Your task to perform on an android device: turn off priority inbox in the gmail app Image 0: 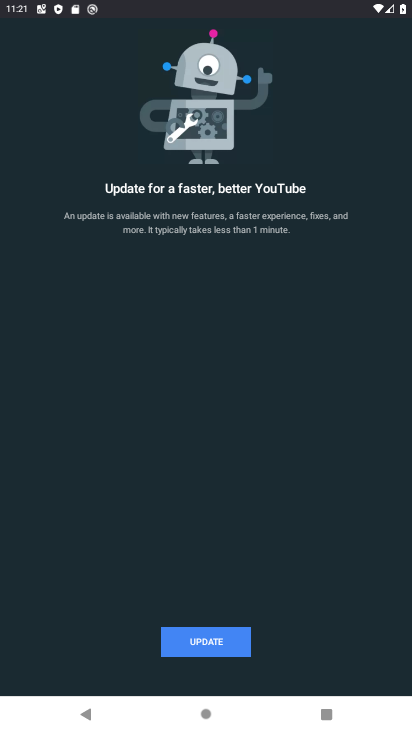
Step 0: task complete